Your task to perform on an android device: Search for seafood restaurants on Google Maps Image 0: 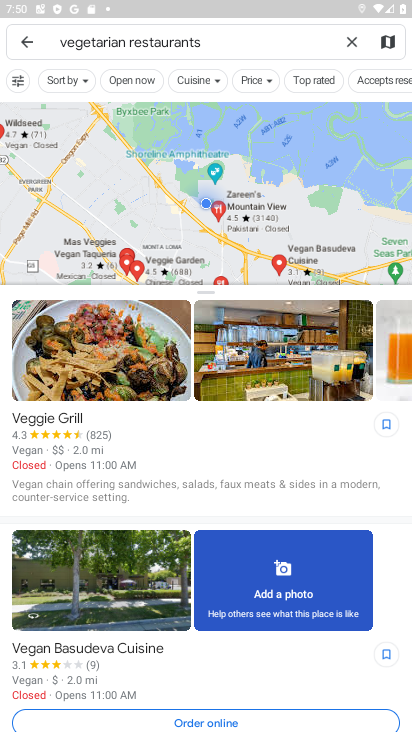
Step 0: task complete